Your task to perform on an android device: Search for hotels in London Image 0: 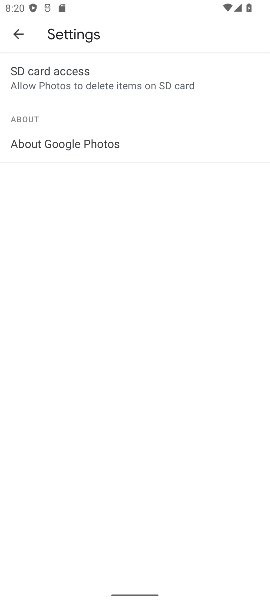
Step 0: press home button
Your task to perform on an android device: Search for hotels in London Image 1: 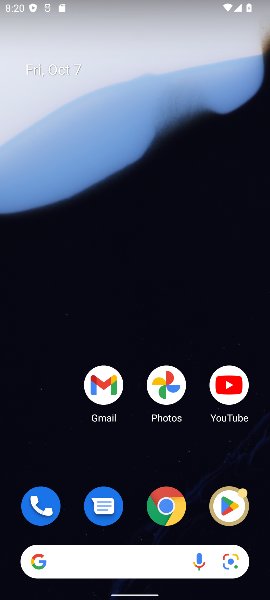
Step 1: click (160, 509)
Your task to perform on an android device: Search for hotels in London Image 2: 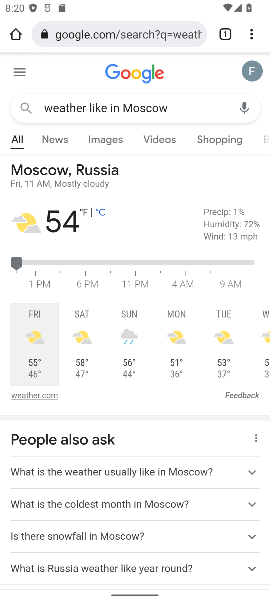
Step 2: click (184, 28)
Your task to perform on an android device: Search for hotels in London Image 3: 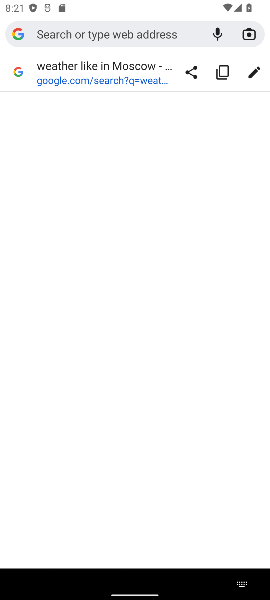
Step 3: type "hotels in London"
Your task to perform on an android device: Search for hotels in London Image 4: 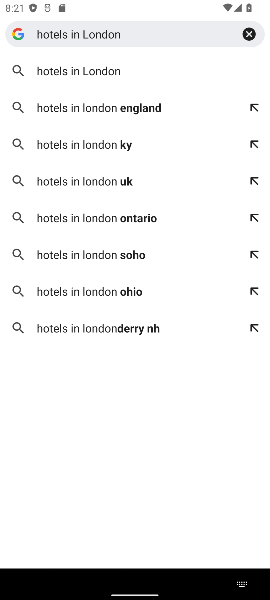
Step 4: click (90, 71)
Your task to perform on an android device: Search for hotels in London Image 5: 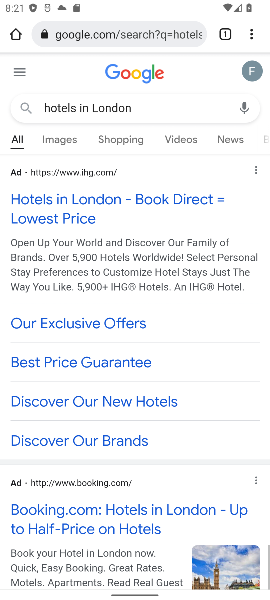
Step 5: drag from (104, 521) to (191, 113)
Your task to perform on an android device: Search for hotels in London Image 6: 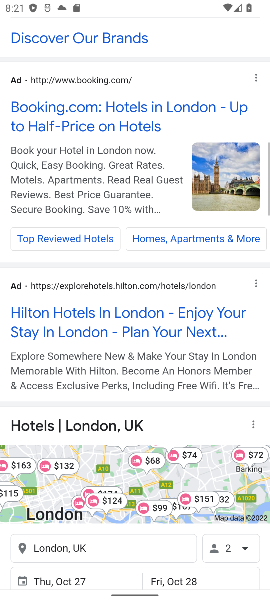
Step 6: drag from (89, 143) to (42, 522)
Your task to perform on an android device: Search for hotels in London Image 7: 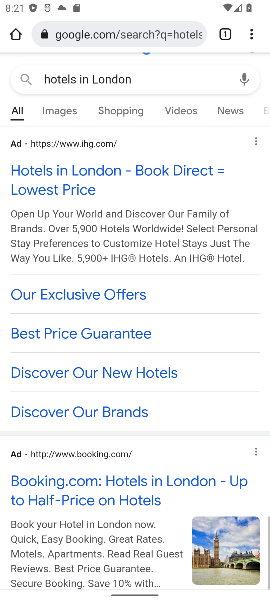
Step 7: drag from (142, 191) to (209, 110)
Your task to perform on an android device: Search for hotels in London Image 8: 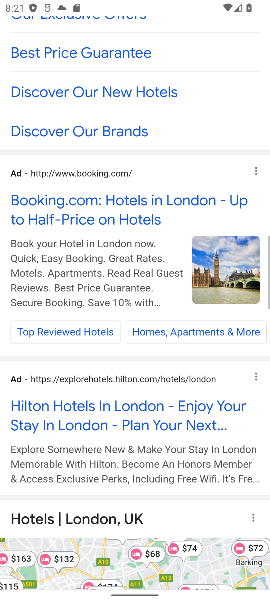
Step 8: drag from (68, 490) to (176, 65)
Your task to perform on an android device: Search for hotels in London Image 9: 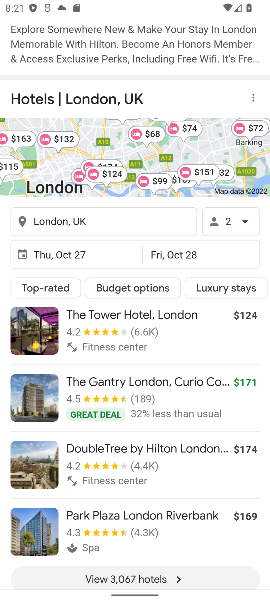
Step 9: drag from (82, 458) to (124, 273)
Your task to perform on an android device: Search for hotels in London Image 10: 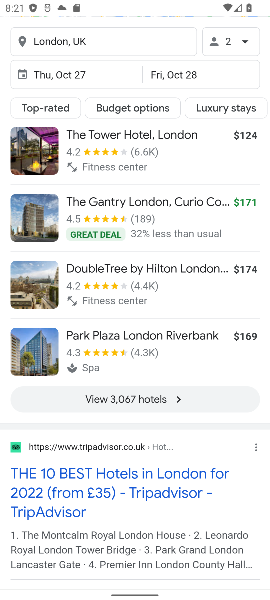
Step 10: click (123, 398)
Your task to perform on an android device: Search for hotels in London Image 11: 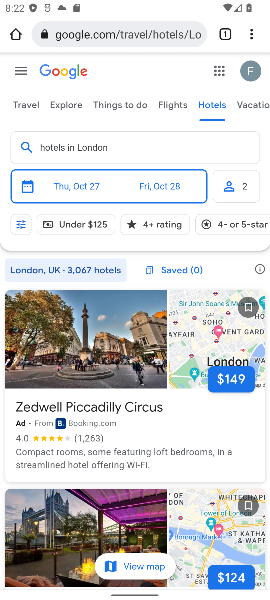
Step 11: task complete